Your task to perform on an android device: Open the Play Movies app and select the watchlist tab. Image 0: 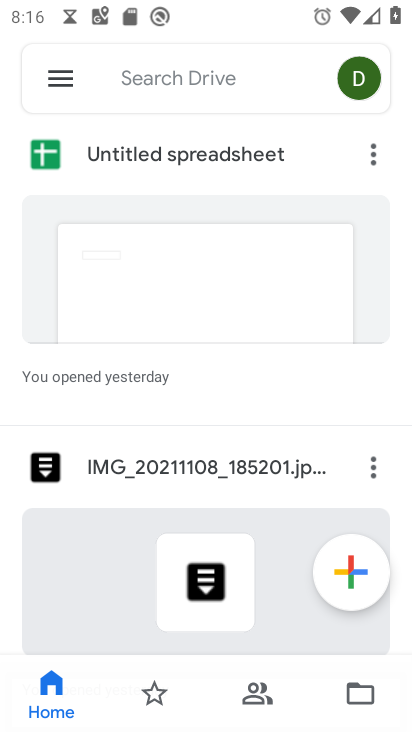
Step 0: press home button
Your task to perform on an android device: Open the Play Movies app and select the watchlist tab. Image 1: 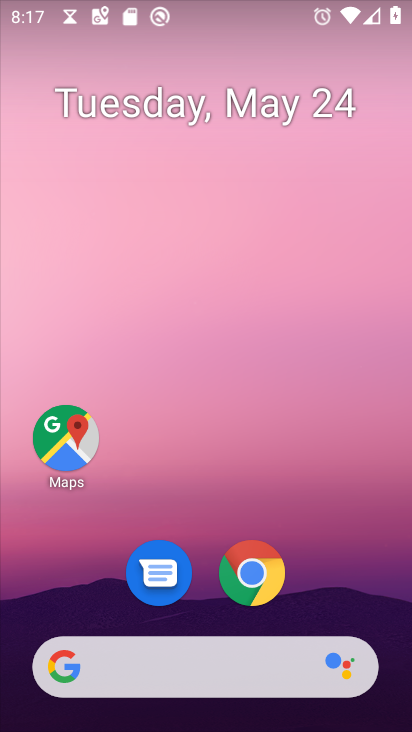
Step 1: drag from (353, 580) to (384, 46)
Your task to perform on an android device: Open the Play Movies app and select the watchlist tab. Image 2: 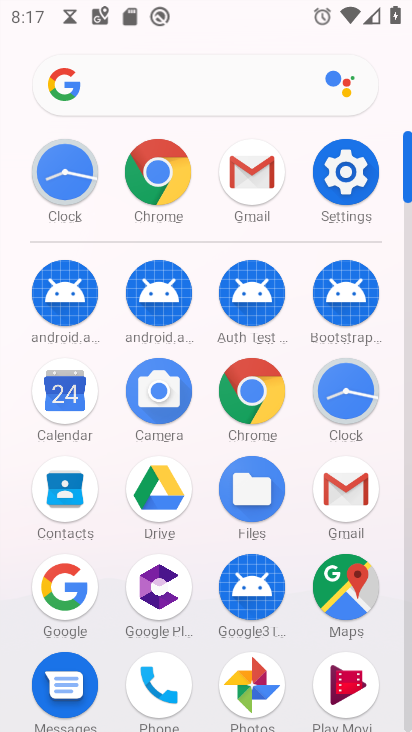
Step 2: click (345, 672)
Your task to perform on an android device: Open the Play Movies app and select the watchlist tab. Image 3: 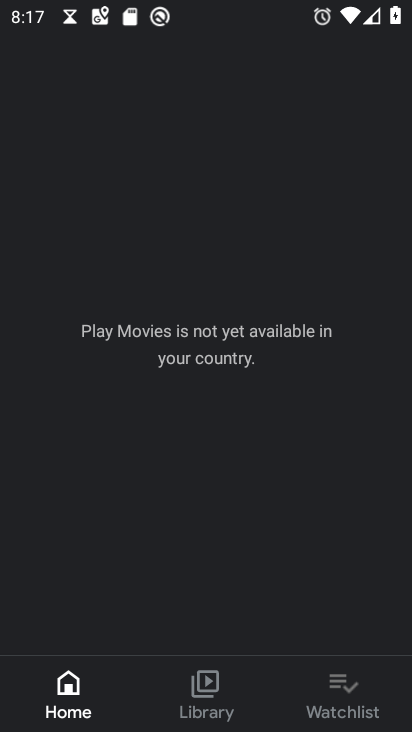
Step 3: click (332, 704)
Your task to perform on an android device: Open the Play Movies app and select the watchlist tab. Image 4: 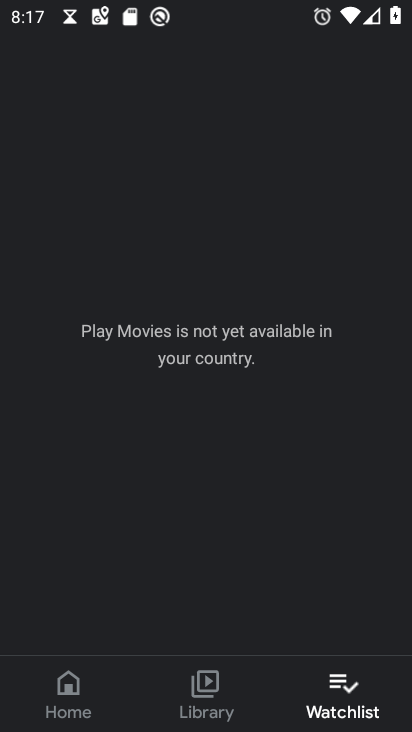
Step 4: task complete